Your task to perform on an android device: open sync settings in chrome Image 0: 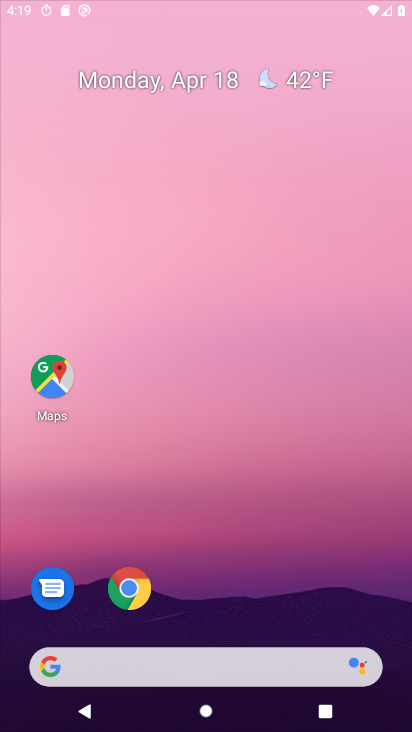
Step 0: click (224, 650)
Your task to perform on an android device: open sync settings in chrome Image 1: 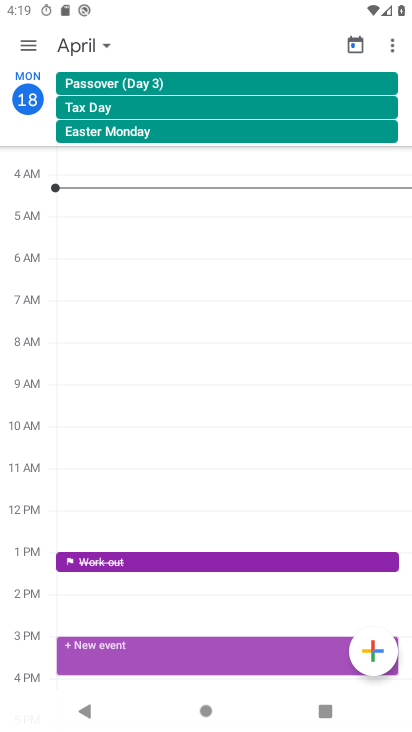
Step 1: task complete